Your task to perform on an android device: delete a single message in the gmail app Image 0: 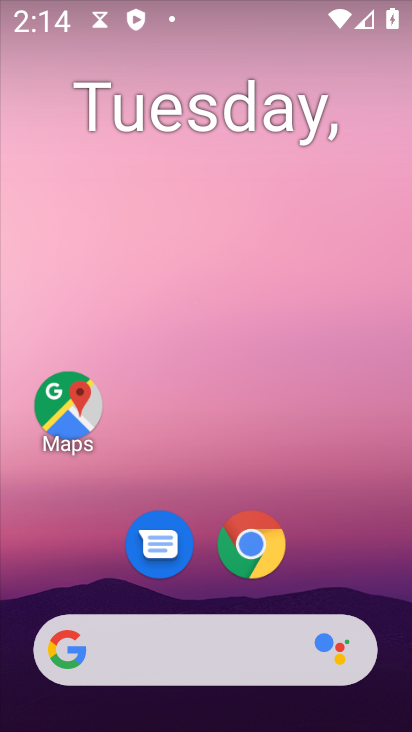
Step 0: drag from (280, 58) to (281, 17)
Your task to perform on an android device: delete a single message in the gmail app Image 1: 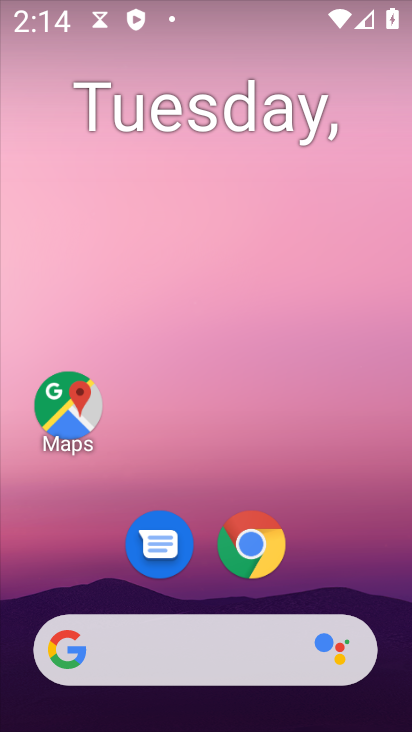
Step 1: drag from (319, 585) to (217, 13)
Your task to perform on an android device: delete a single message in the gmail app Image 2: 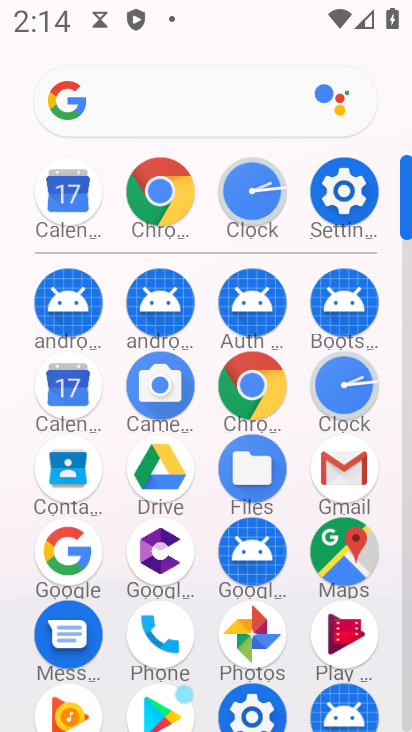
Step 2: drag from (7, 570) to (0, 219)
Your task to perform on an android device: delete a single message in the gmail app Image 3: 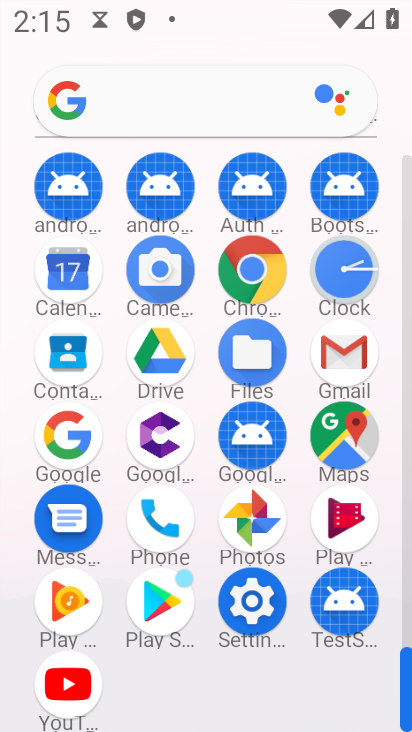
Step 3: click (345, 348)
Your task to perform on an android device: delete a single message in the gmail app Image 4: 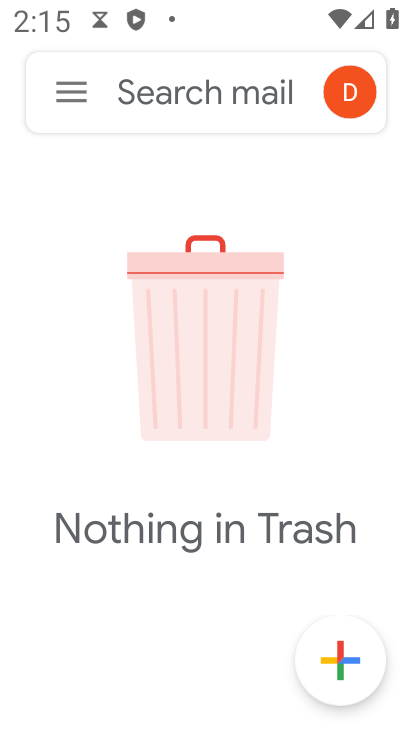
Step 4: click (74, 84)
Your task to perform on an android device: delete a single message in the gmail app Image 5: 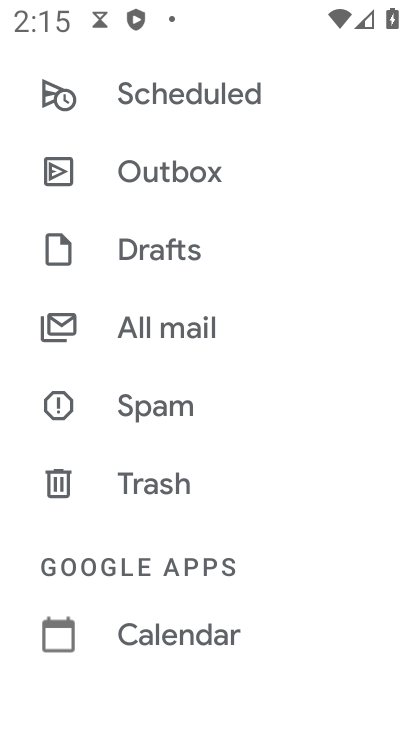
Step 5: click (178, 324)
Your task to perform on an android device: delete a single message in the gmail app Image 6: 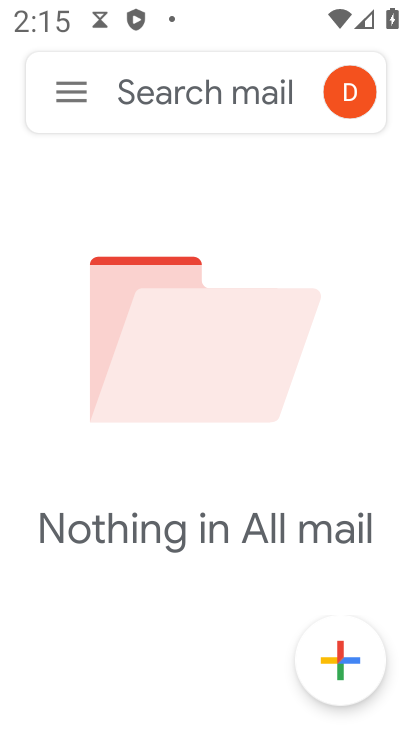
Step 6: click (76, 96)
Your task to perform on an android device: delete a single message in the gmail app Image 7: 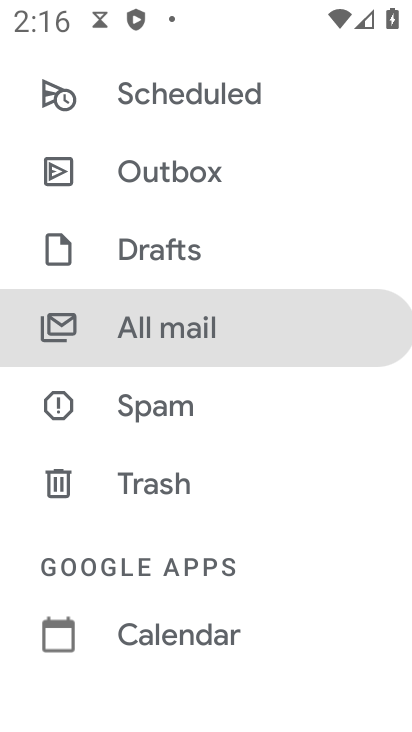
Step 7: drag from (260, 125) to (265, 533)
Your task to perform on an android device: delete a single message in the gmail app Image 8: 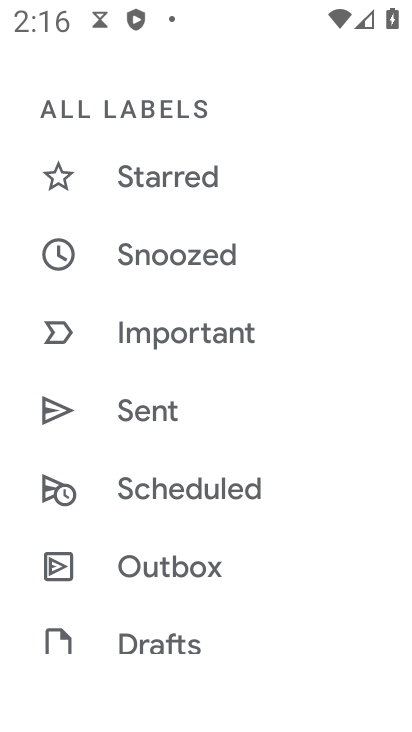
Step 8: drag from (245, 186) to (253, 475)
Your task to perform on an android device: delete a single message in the gmail app Image 9: 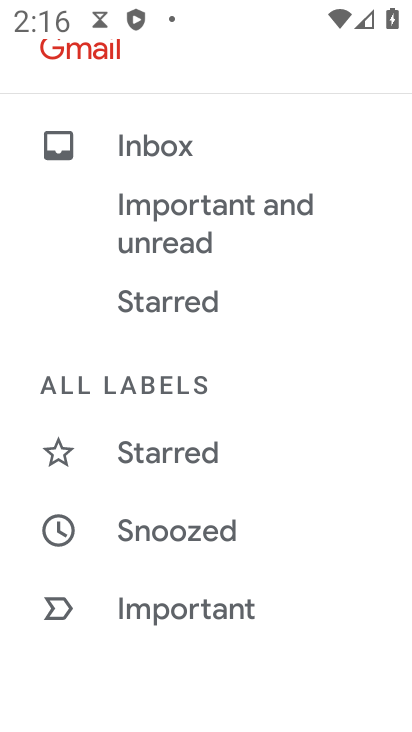
Step 9: drag from (213, 192) to (221, 507)
Your task to perform on an android device: delete a single message in the gmail app Image 10: 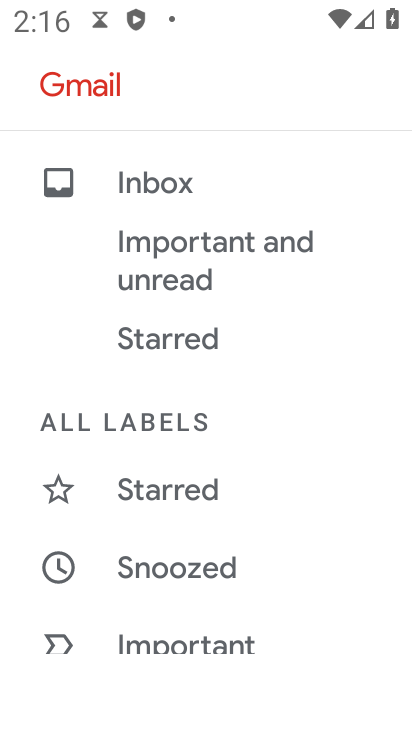
Step 10: click (173, 172)
Your task to perform on an android device: delete a single message in the gmail app Image 11: 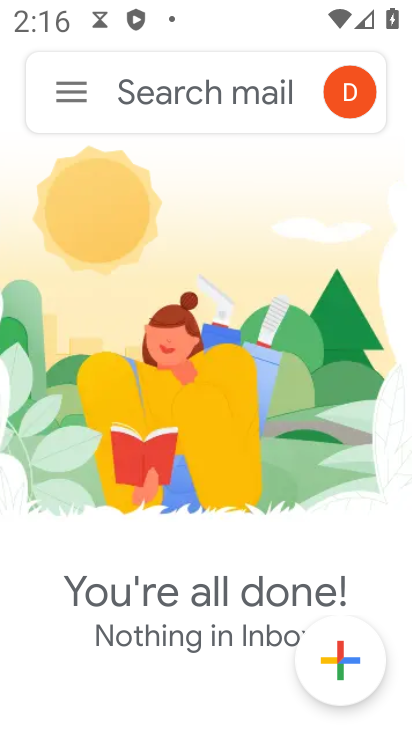
Step 11: task complete